Your task to perform on an android device: open app "eBay: The shopping marketplace" Image 0: 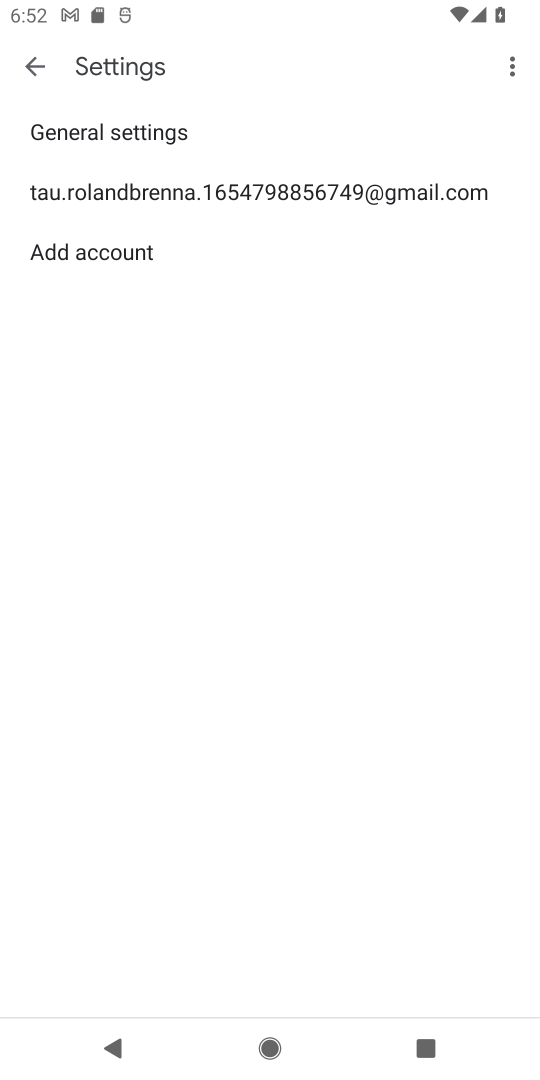
Step 0: press home button
Your task to perform on an android device: open app "eBay: The shopping marketplace" Image 1: 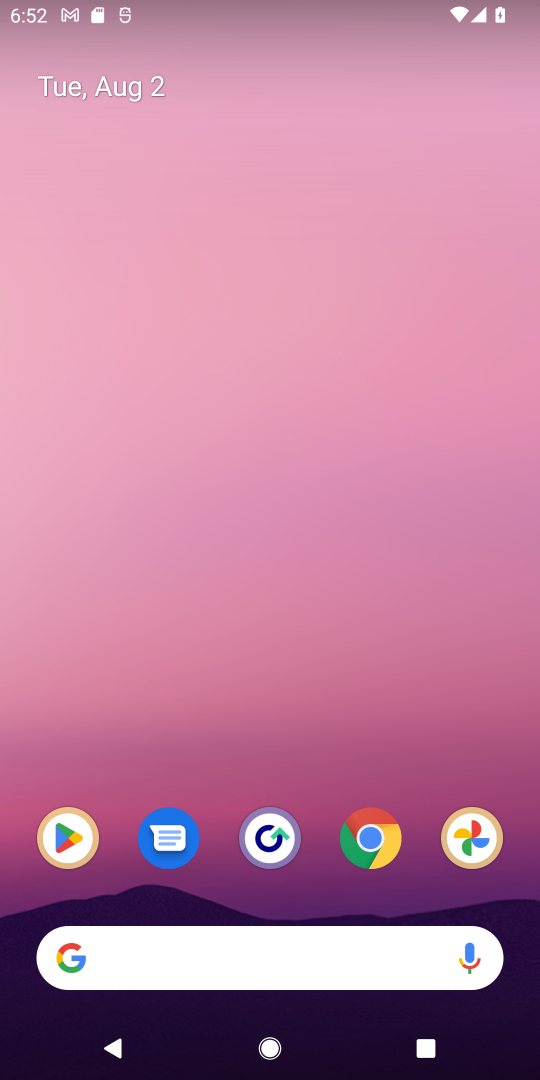
Step 1: click (60, 820)
Your task to perform on an android device: open app "eBay: The shopping marketplace" Image 2: 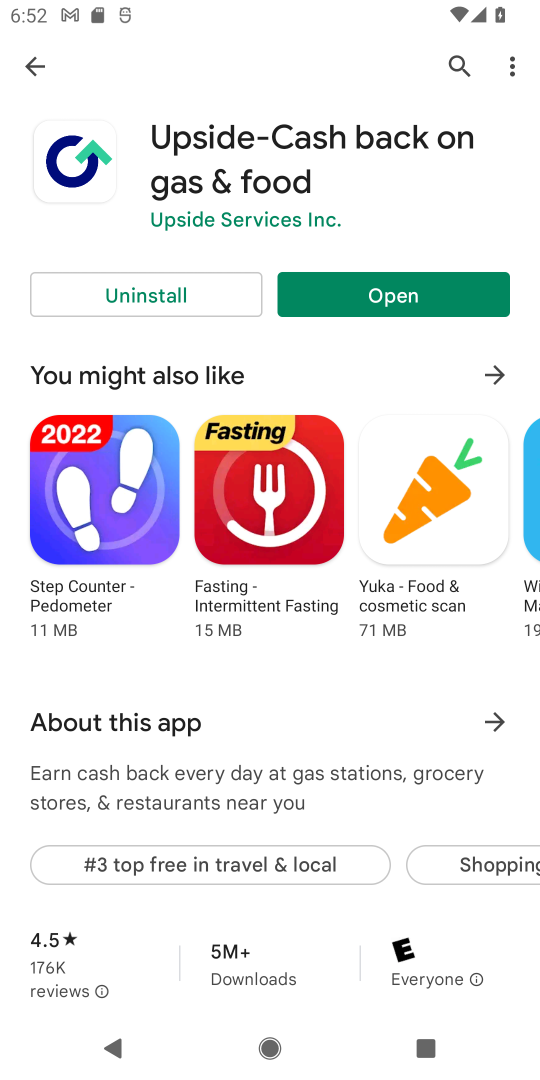
Step 2: click (453, 67)
Your task to perform on an android device: open app "eBay: The shopping marketplace" Image 3: 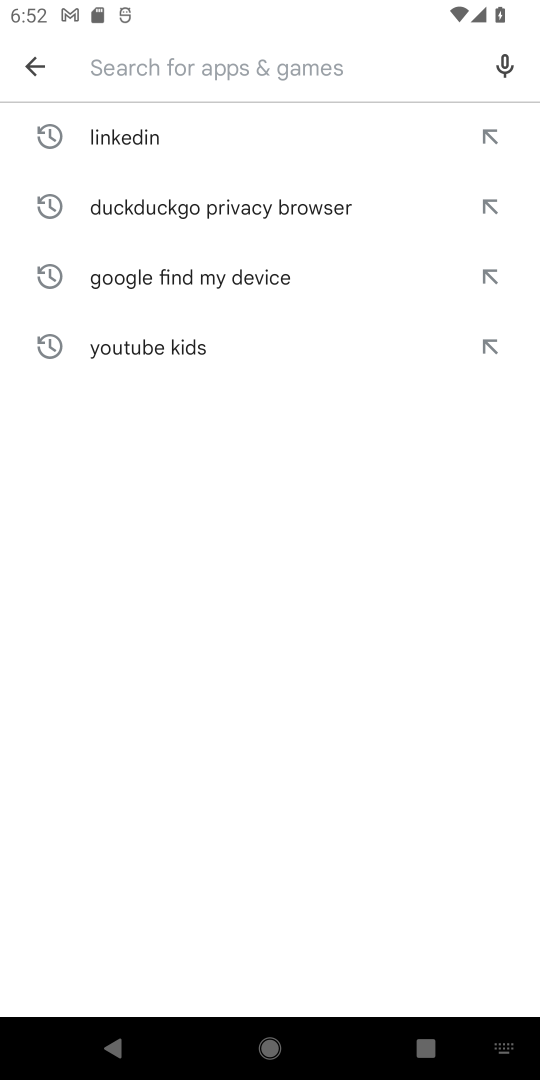
Step 3: type "ebay: the shopping marketplace"
Your task to perform on an android device: open app "eBay: The shopping marketplace" Image 4: 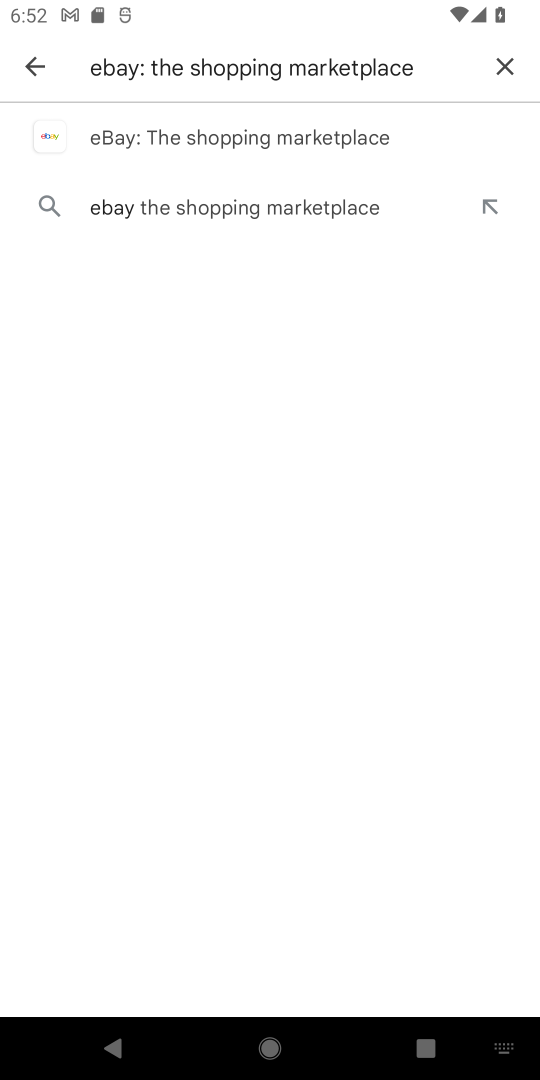
Step 4: click (172, 135)
Your task to perform on an android device: open app "eBay: The shopping marketplace" Image 5: 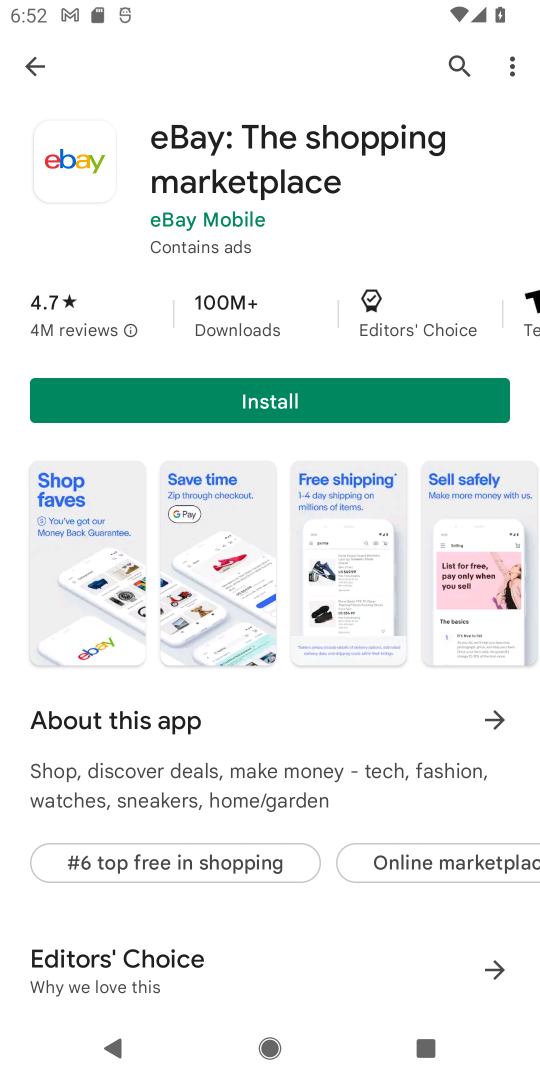
Step 5: task complete